Your task to perform on an android device: Open the calendar app, open the side menu, and click the "Day" option Image 0: 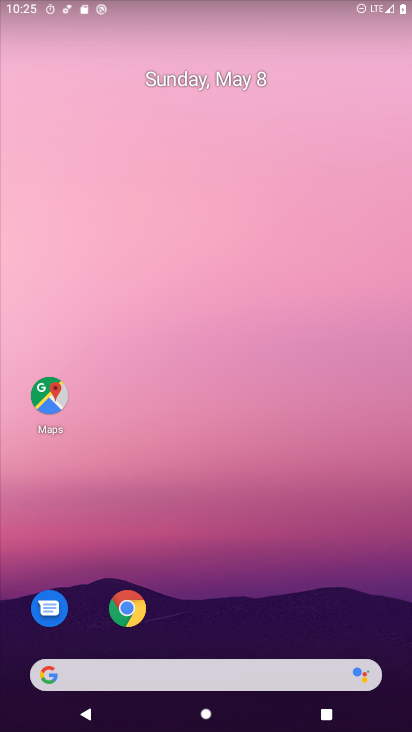
Step 0: drag from (154, 648) to (158, 272)
Your task to perform on an android device: Open the calendar app, open the side menu, and click the "Day" option Image 1: 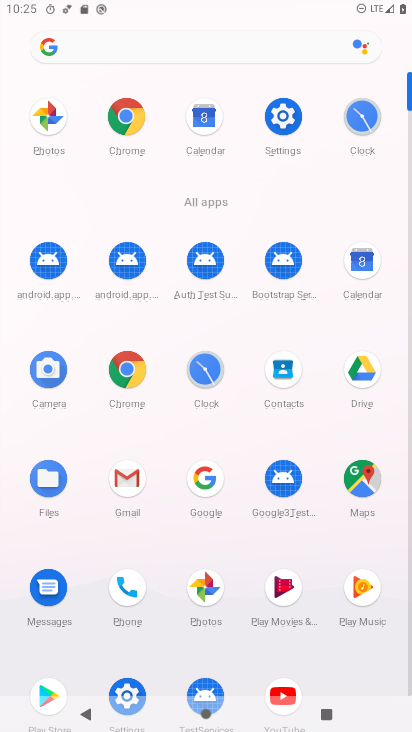
Step 1: click (356, 268)
Your task to perform on an android device: Open the calendar app, open the side menu, and click the "Day" option Image 2: 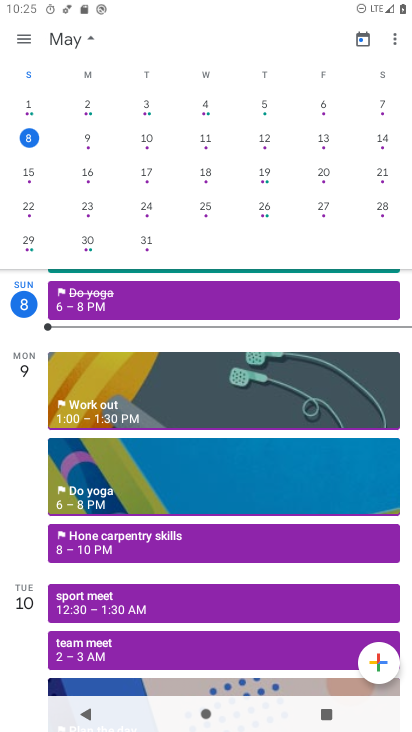
Step 2: click (21, 43)
Your task to perform on an android device: Open the calendar app, open the side menu, and click the "Day" option Image 3: 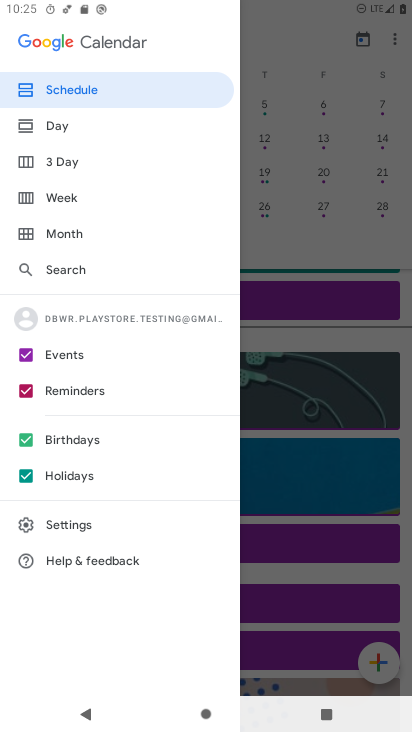
Step 3: click (62, 128)
Your task to perform on an android device: Open the calendar app, open the side menu, and click the "Day" option Image 4: 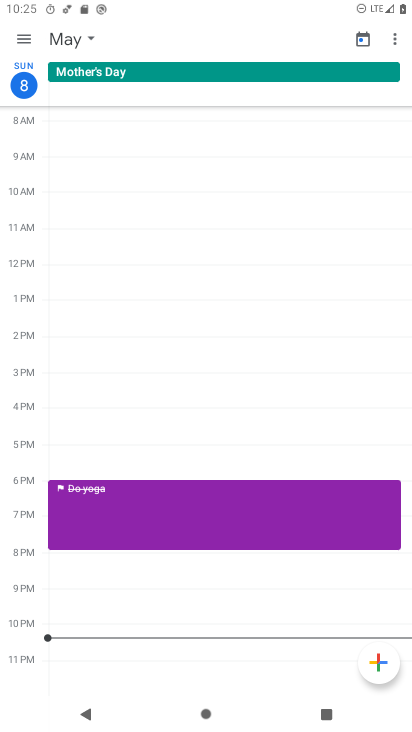
Step 4: task complete